Your task to perform on an android device: set the stopwatch Image 0: 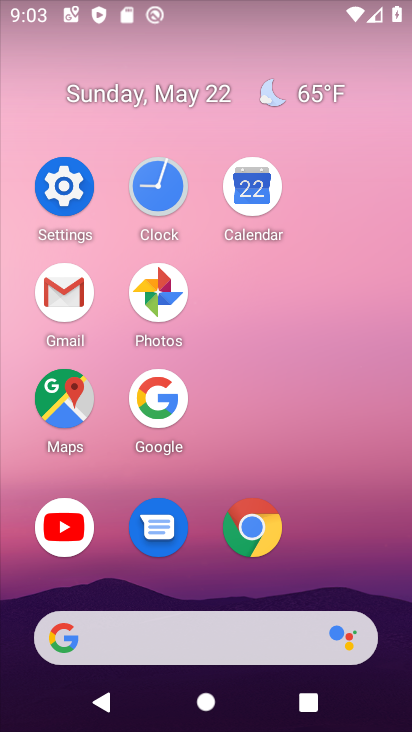
Step 0: click (148, 186)
Your task to perform on an android device: set the stopwatch Image 1: 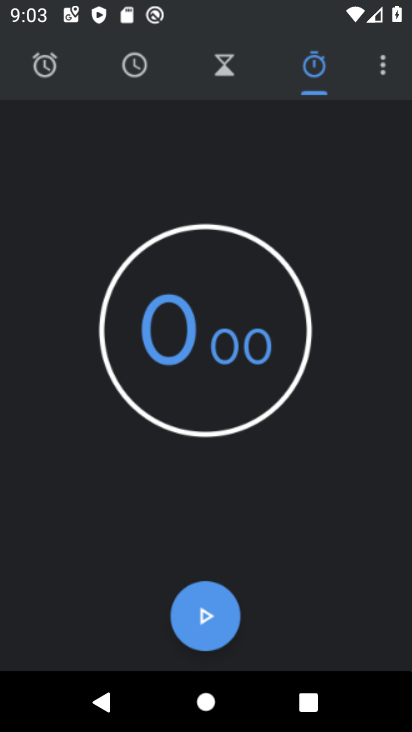
Step 1: click (166, 182)
Your task to perform on an android device: set the stopwatch Image 2: 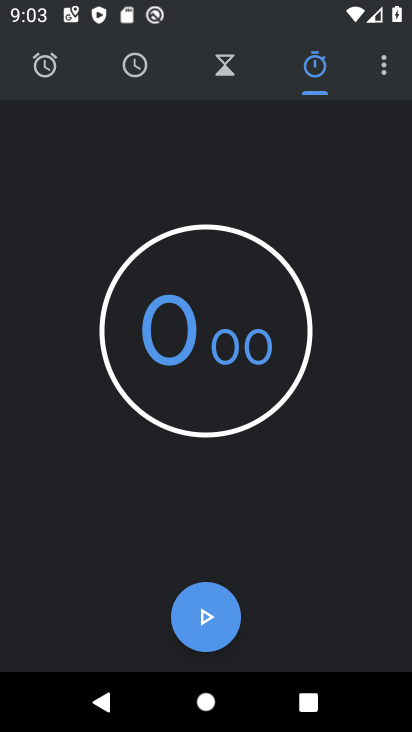
Step 2: click (212, 620)
Your task to perform on an android device: set the stopwatch Image 3: 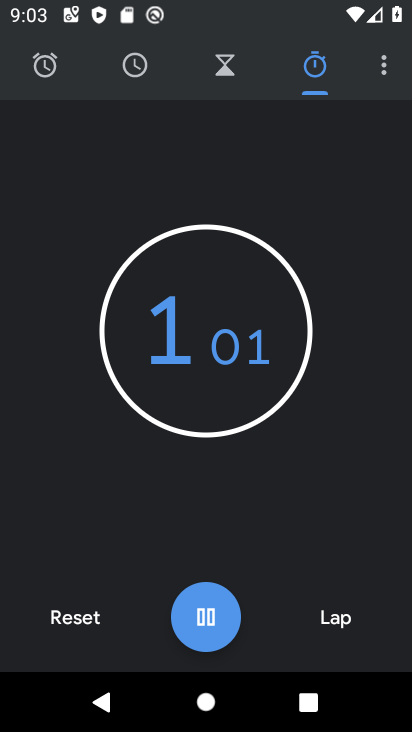
Step 3: task complete